Your task to perform on an android device: Clear the cart on newegg.com. Search for razer thresher on newegg.com, select the first entry, and add it to the cart. Image 0: 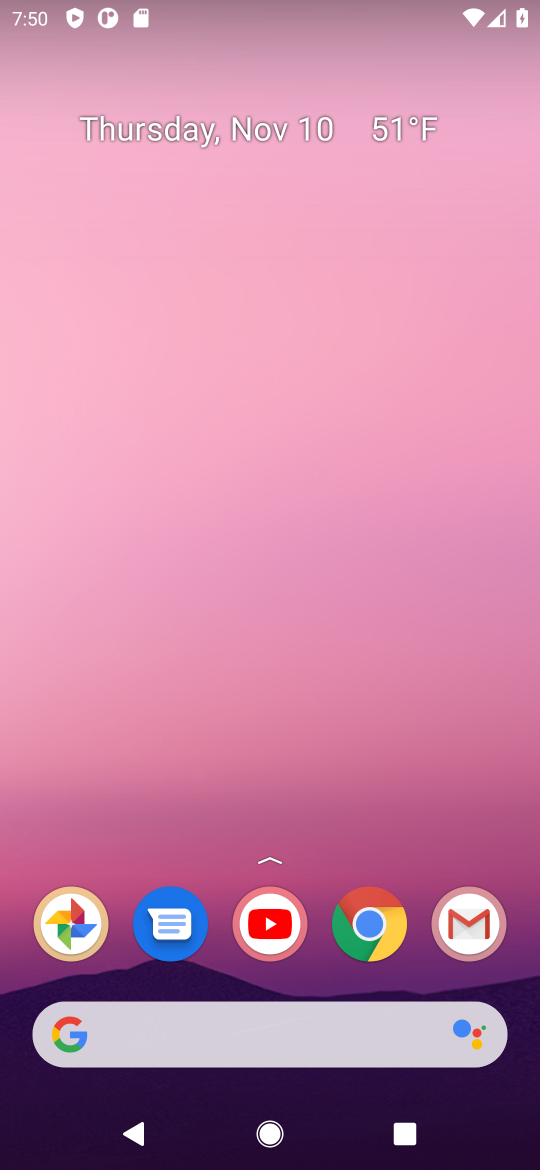
Step 0: click (359, 929)
Your task to perform on an android device: Clear the cart on newegg.com. Search for razer thresher on newegg.com, select the first entry, and add it to the cart. Image 1: 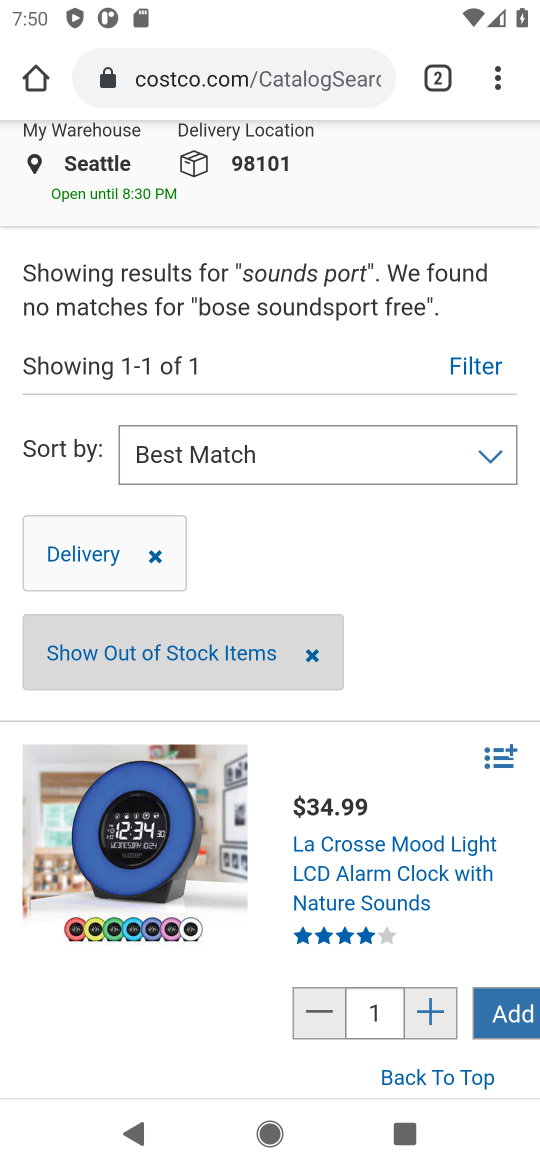
Step 1: click (202, 73)
Your task to perform on an android device: Clear the cart on newegg.com. Search for razer thresher on newegg.com, select the first entry, and add it to the cart. Image 2: 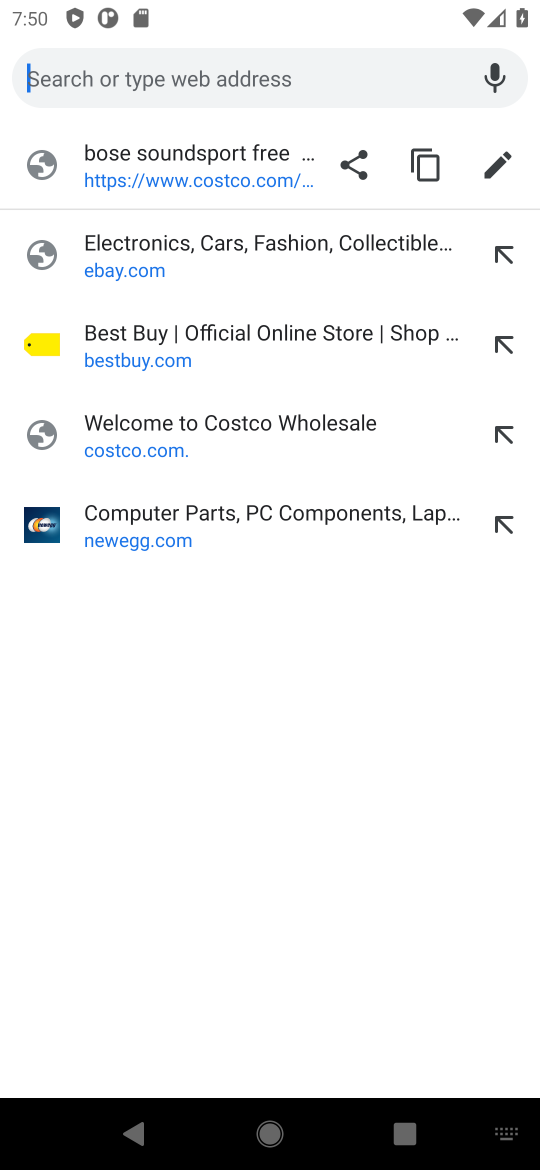
Step 2: click (112, 522)
Your task to perform on an android device: Clear the cart on newegg.com. Search for razer thresher on newegg.com, select the first entry, and add it to the cart. Image 3: 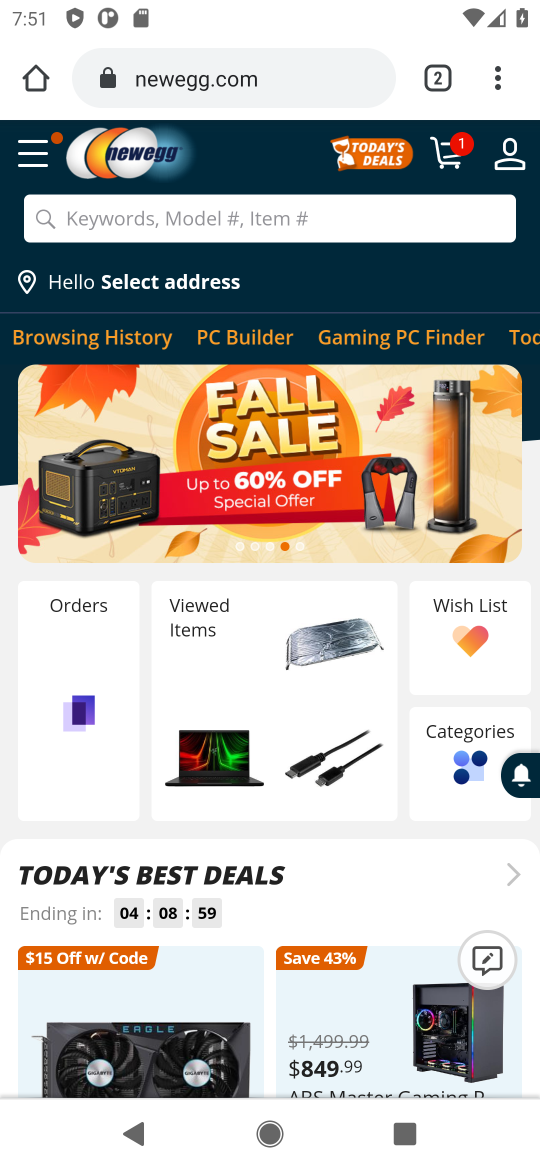
Step 3: click (445, 155)
Your task to perform on an android device: Clear the cart on newegg.com. Search for razer thresher on newegg.com, select the first entry, and add it to the cart. Image 4: 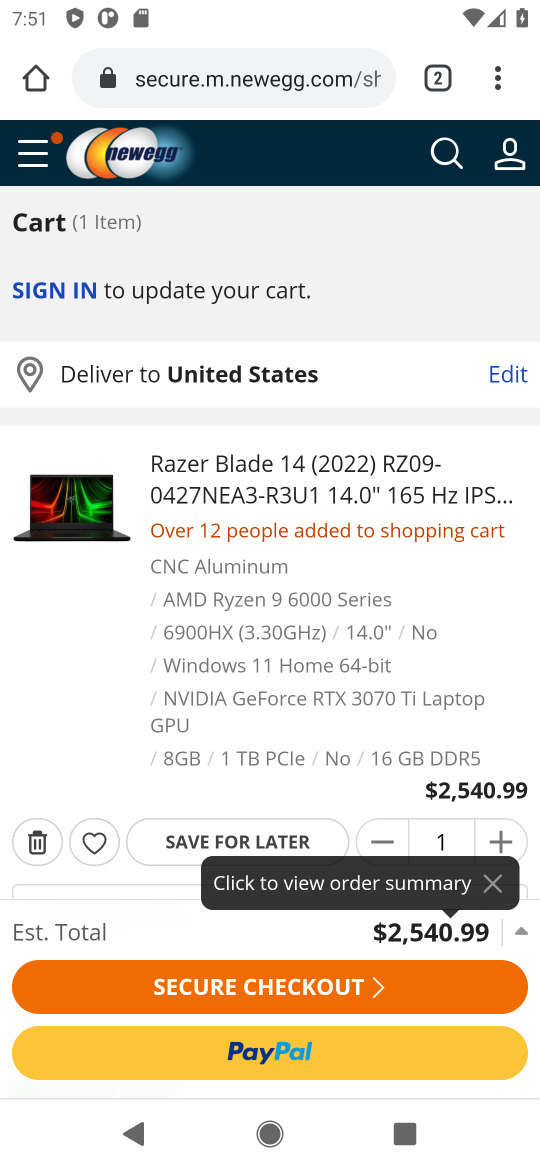
Step 4: click (42, 842)
Your task to perform on an android device: Clear the cart on newegg.com. Search for razer thresher on newegg.com, select the first entry, and add it to the cart. Image 5: 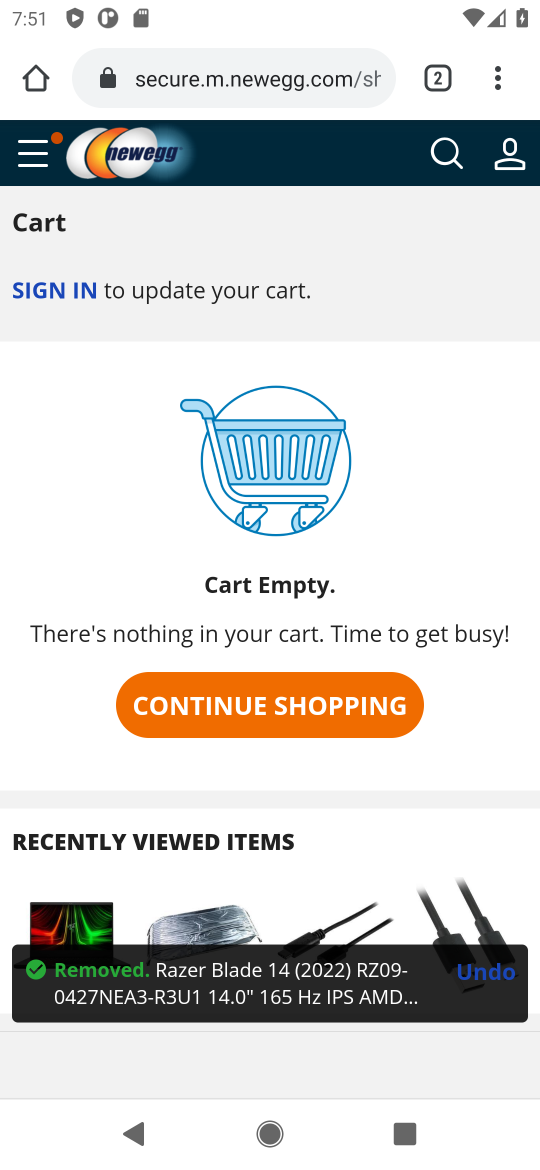
Step 5: click (205, 707)
Your task to perform on an android device: Clear the cart on newegg.com. Search for razer thresher on newegg.com, select the first entry, and add it to the cart. Image 6: 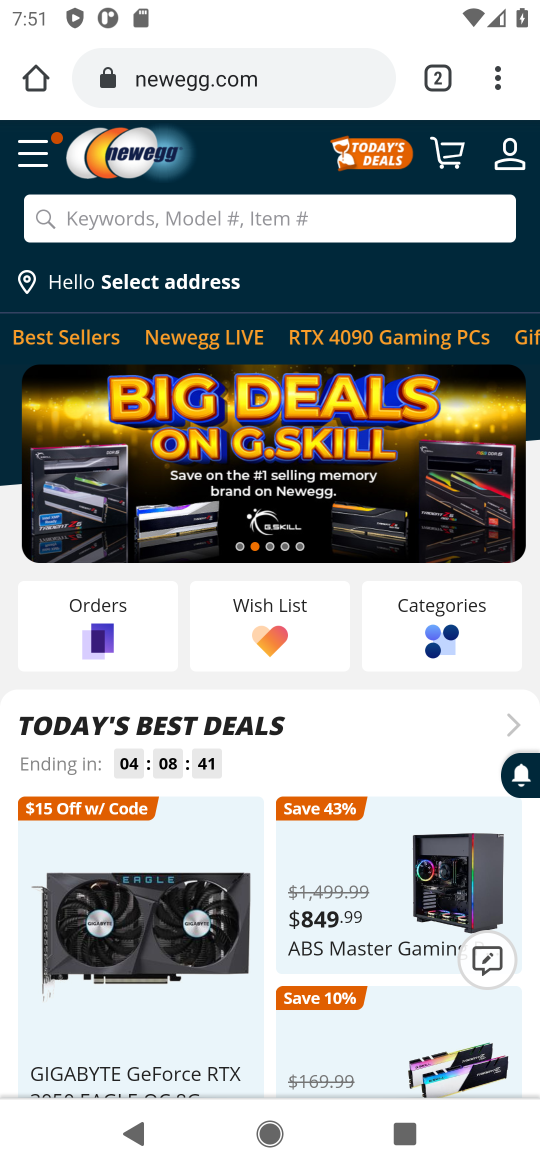
Step 6: click (210, 221)
Your task to perform on an android device: Clear the cart on newegg.com. Search for razer thresher on newegg.com, select the first entry, and add it to the cart. Image 7: 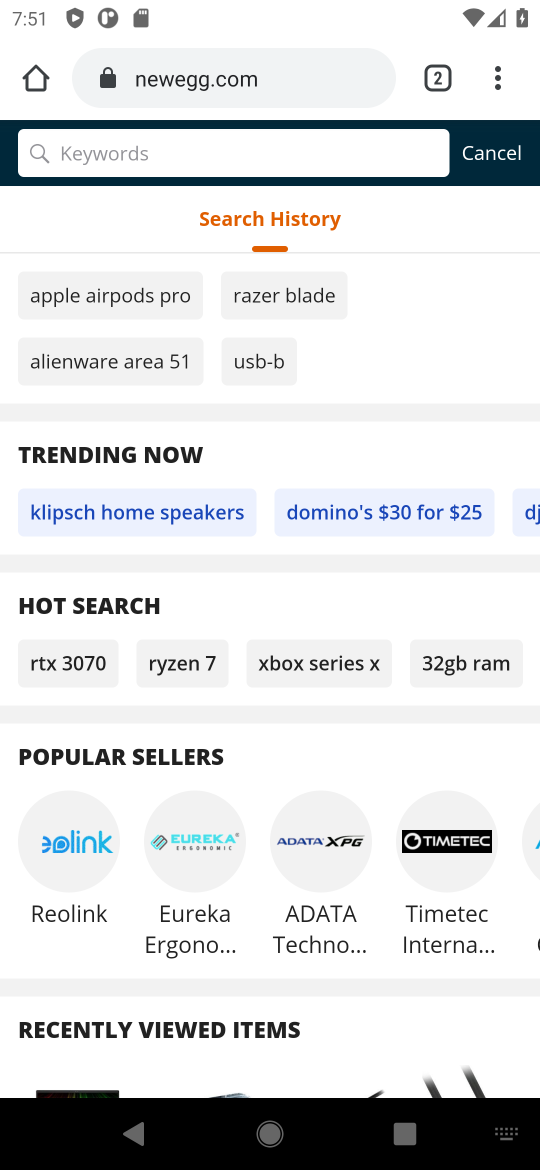
Step 7: type "razer thresher"
Your task to perform on an android device: Clear the cart on newegg.com. Search for razer thresher on newegg.com, select the first entry, and add it to the cart. Image 8: 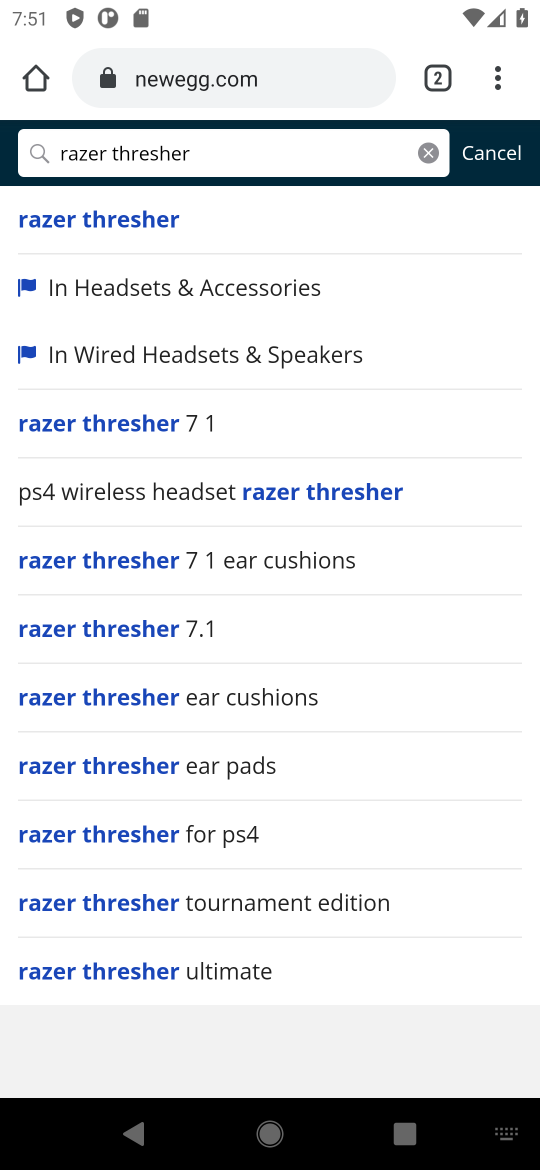
Step 8: click (137, 223)
Your task to perform on an android device: Clear the cart on newegg.com. Search for razer thresher on newegg.com, select the first entry, and add it to the cart. Image 9: 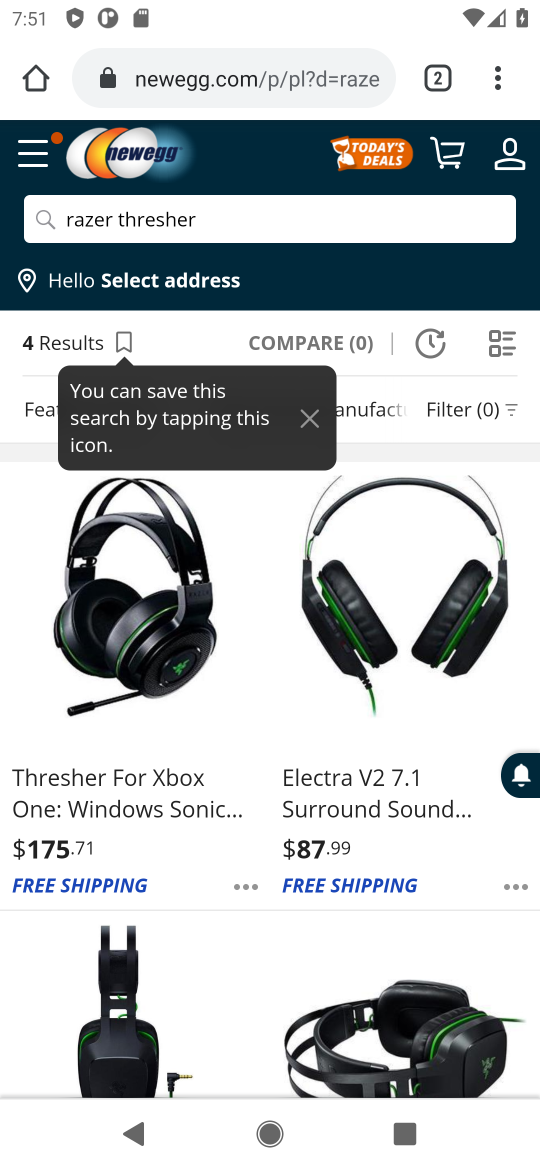
Step 9: click (127, 688)
Your task to perform on an android device: Clear the cart on newegg.com. Search for razer thresher on newegg.com, select the first entry, and add it to the cart. Image 10: 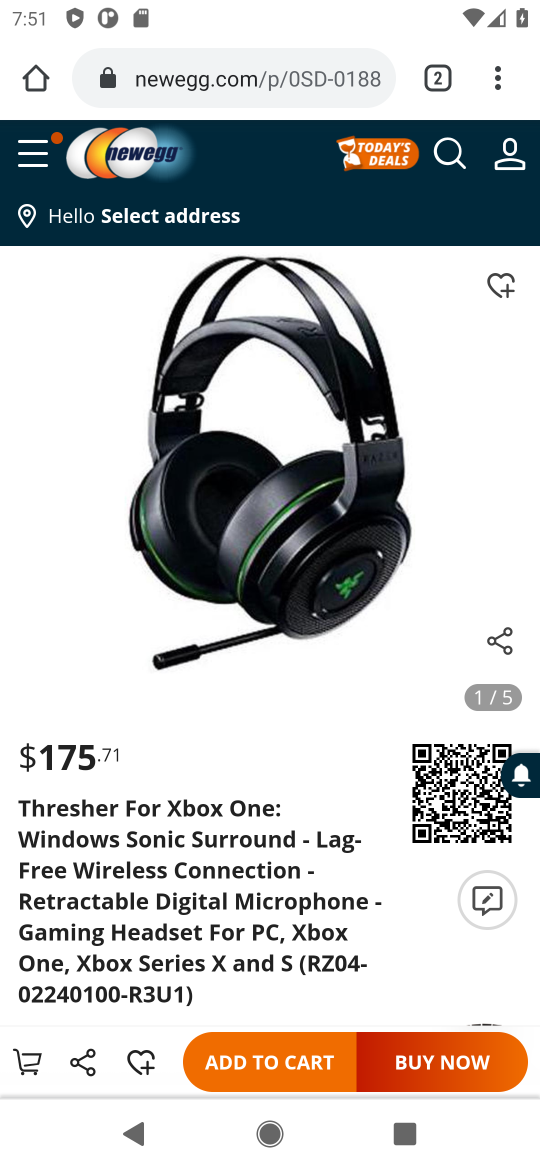
Step 10: task complete